Your task to perform on an android device: Is it going to rain tomorrow? Image 0: 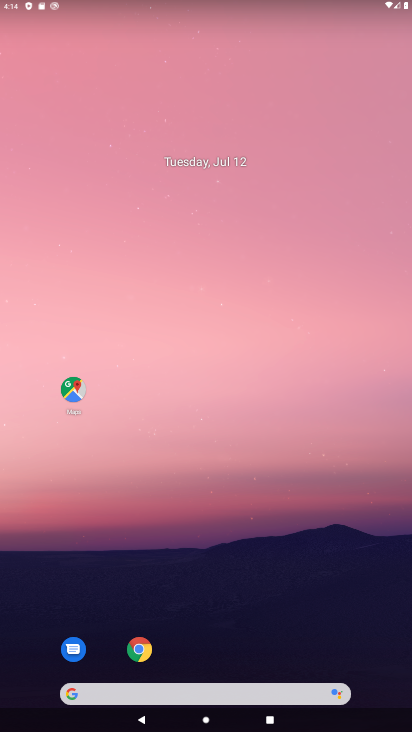
Step 0: drag from (211, 692) to (164, 207)
Your task to perform on an android device: Is it going to rain tomorrow? Image 1: 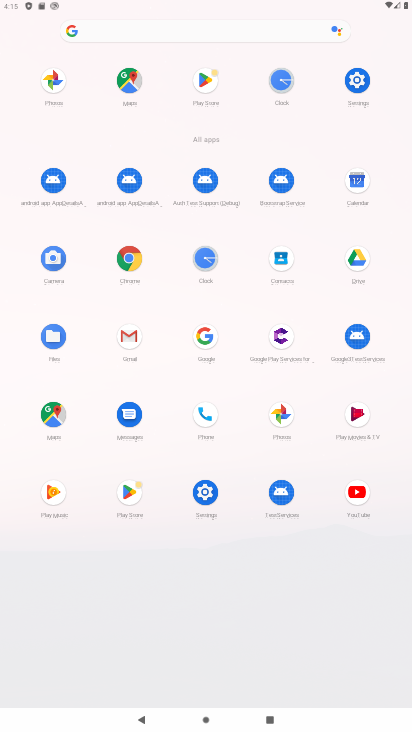
Step 1: click (203, 333)
Your task to perform on an android device: Is it going to rain tomorrow? Image 2: 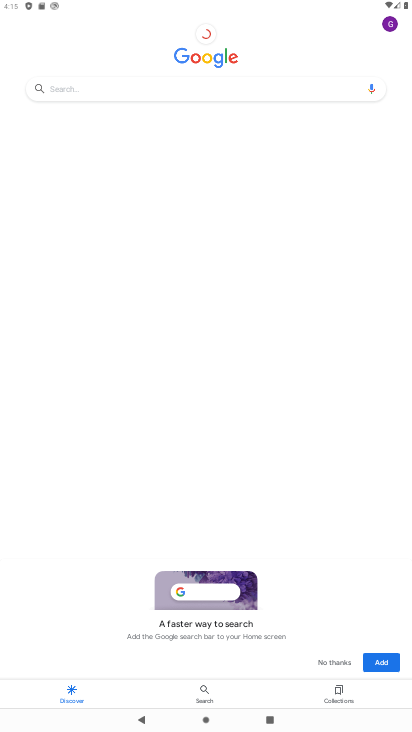
Step 2: click (181, 72)
Your task to perform on an android device: Is it going to rain tomorrow? Image 3: 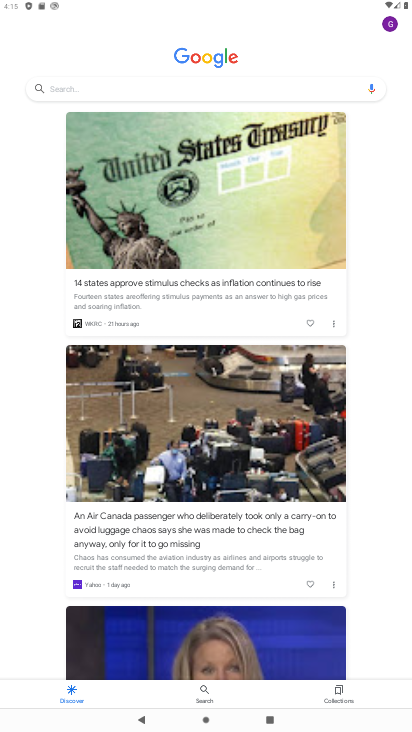
Step 3: click (91, 83)
Your task to perform on an android device: Is it going to rain tomorrow? Image 4: 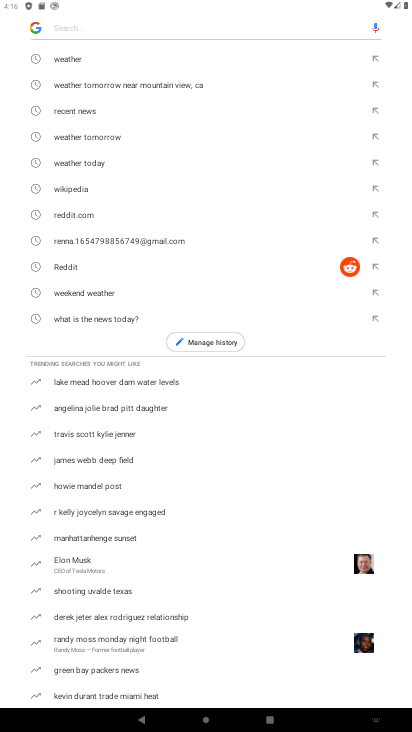
Step 4: type "Is it going to rain tomorrow?"
Your task to perform on an android device: Is it going to rain tomorrow? Image 5: 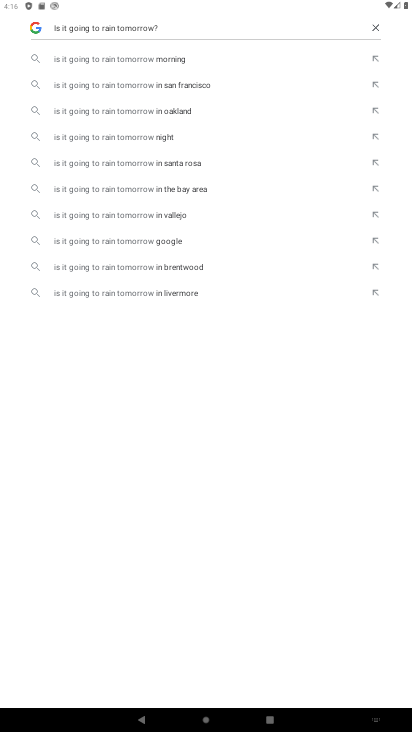
Step 5: click (130, 62)
Your task to perform on an android device: Is it going to rain tomorrow? Image 6: 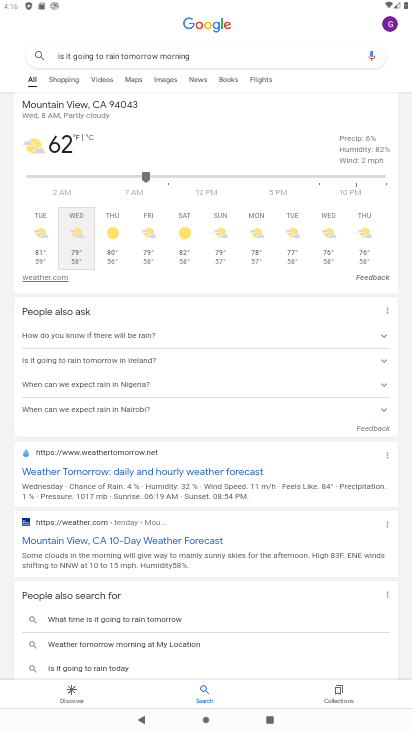
Step 6: task complete